Your task to perform on an android device: toggle notifications settings in the gmail app Image 0: 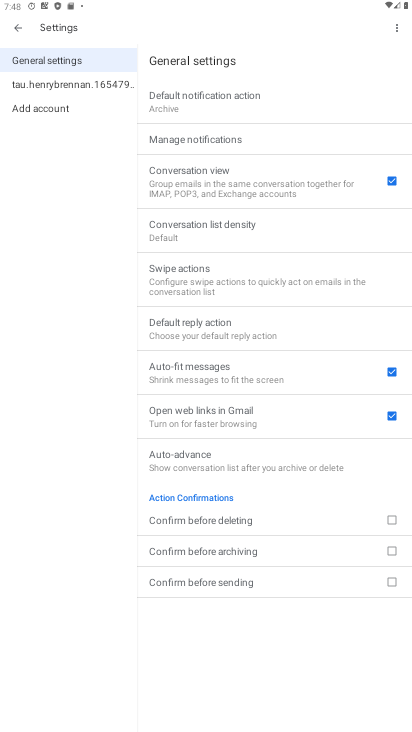
Step 0: press home button
Your task to perform on an android device: toggle notifications settings in the gmail app Image 1: 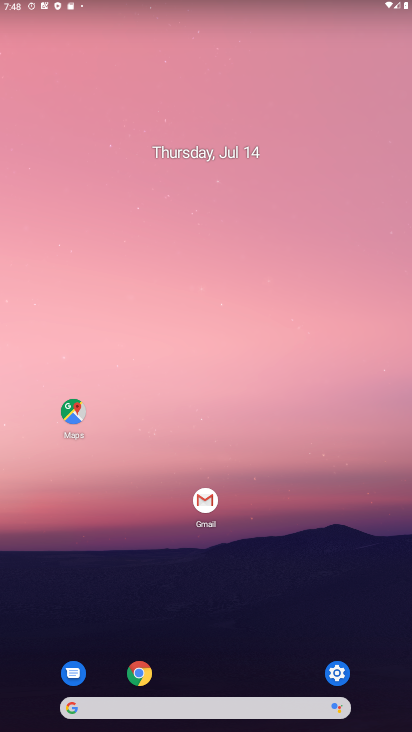
Step 1: click (202, 509)
Your task to perform on an android device: toggle notifications settings in the gmail app Image 2: 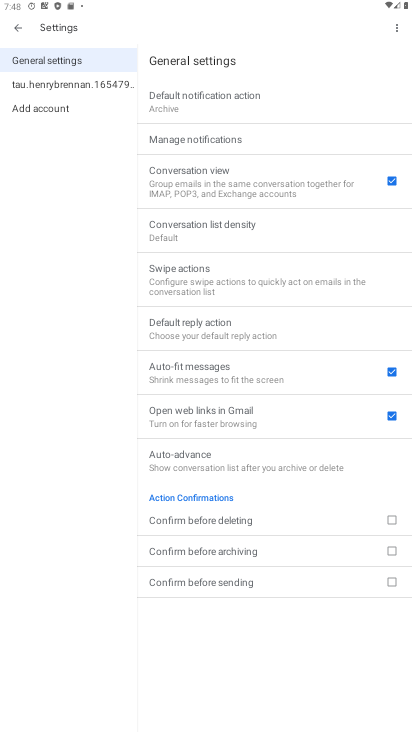
Step 2: click (198, 147)
Your task to perform on an android device: toggle notifications settings in the gmail app Image 3: 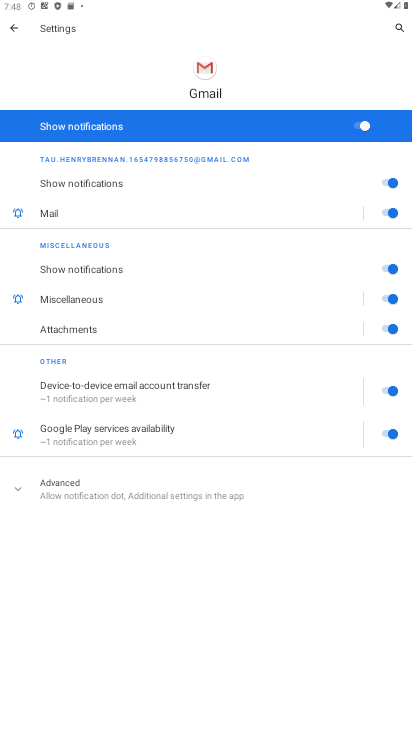
Step 3: task complete